Your task to perform on an android device: Open Yahoo.com Image 0: 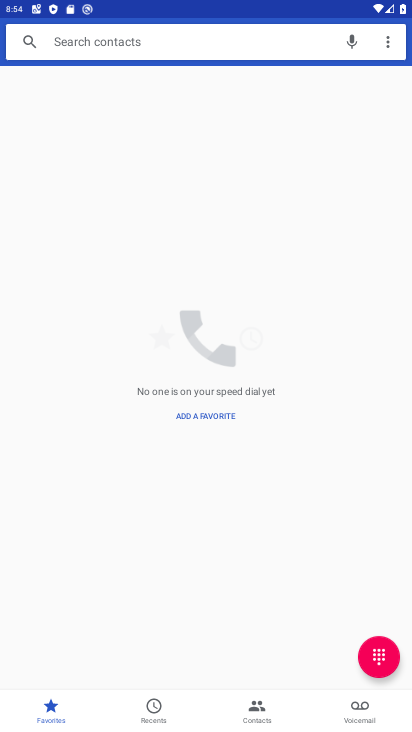
Step 0: press home button
Your task to perform on an android device: Open Yahoo.com Image 1: 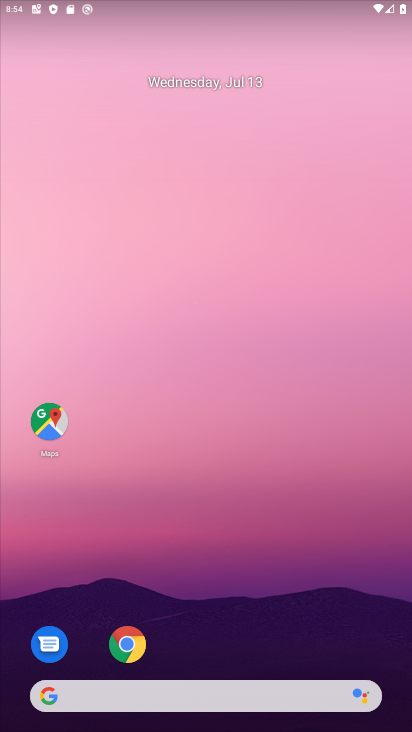
Step 1: drag from (225, 682) to (224, 250)
Your task to perform on an android device: Open Yahoo.com Image 2: 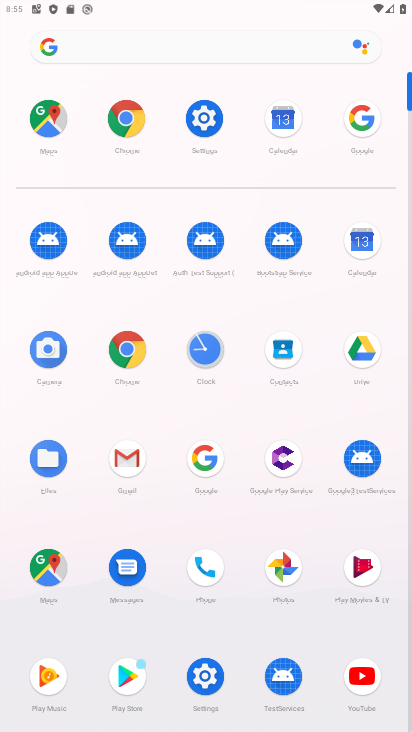
Step 2: click (126, 120)
Your task to perform on an android device: Open Yahoo.com Image 3: 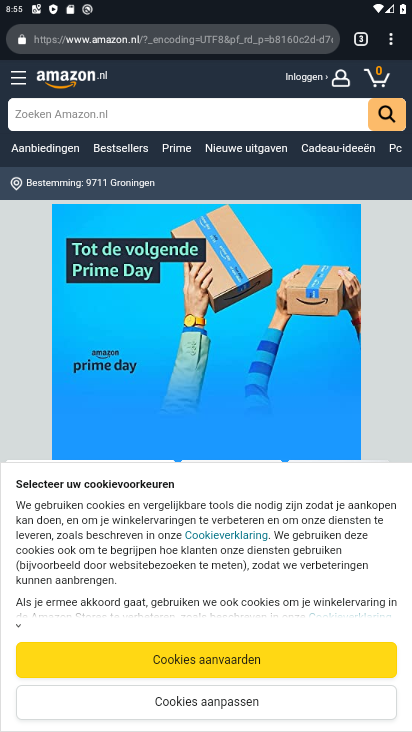
Step 3: click (393, 47)
Your task to perform on an android device: Open Yahoo.com Image 4: 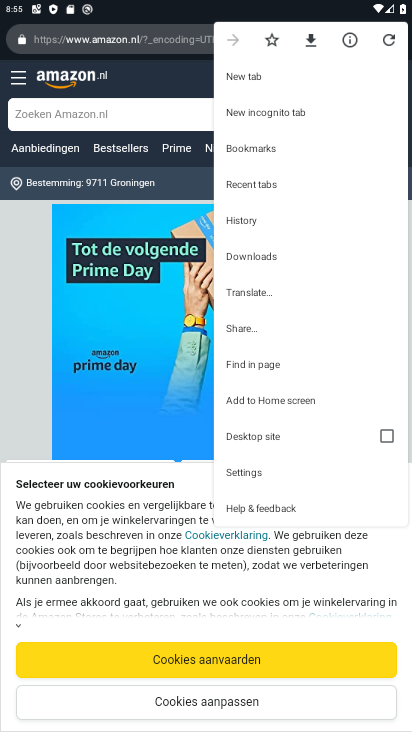
Step 4: click (240, 75)
Your task to perform on an android device: Open Yahoo.com Image 5: 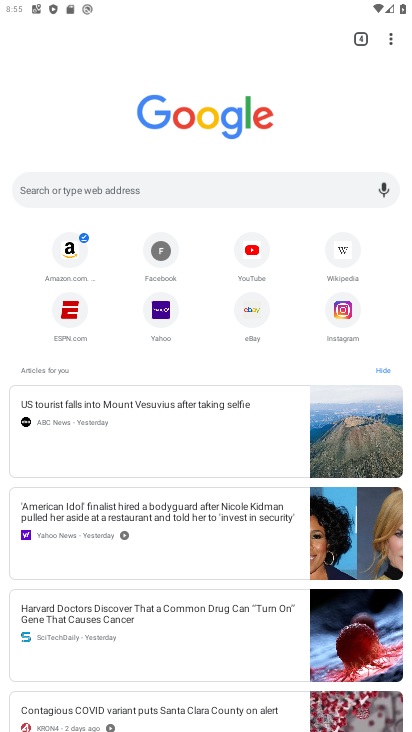
Step 5: click (153, 311)
Your task to perform on an android device: Open Yahoo.com Image 6: 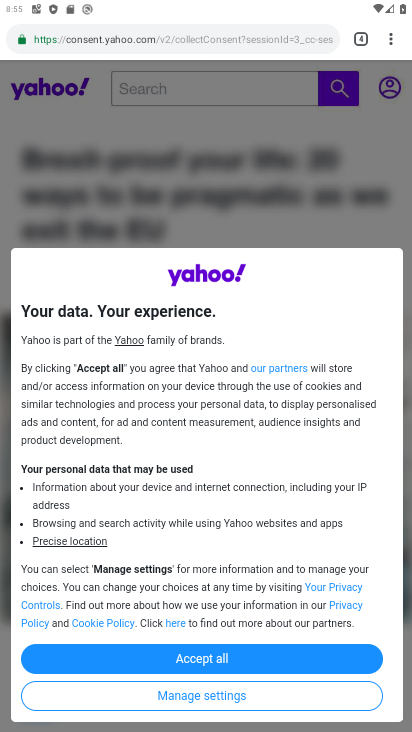
Step 6: task complete